Your task to perform on an android device: Do I have any events tomorrow? Image 0: 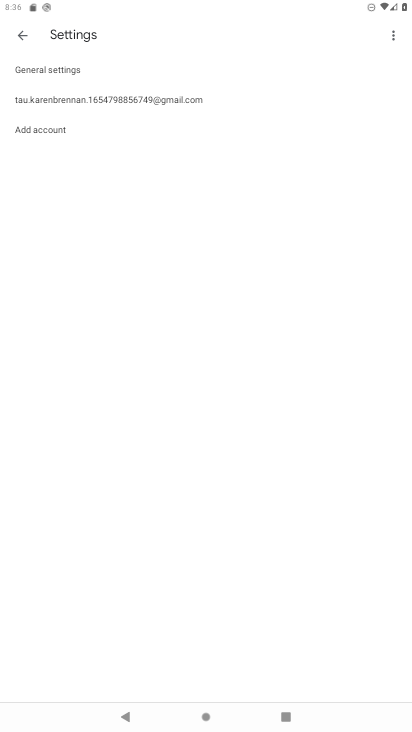
Step 0: press home button
Your task to perform on an android device: Do I have any events tomorrow? Image 1: 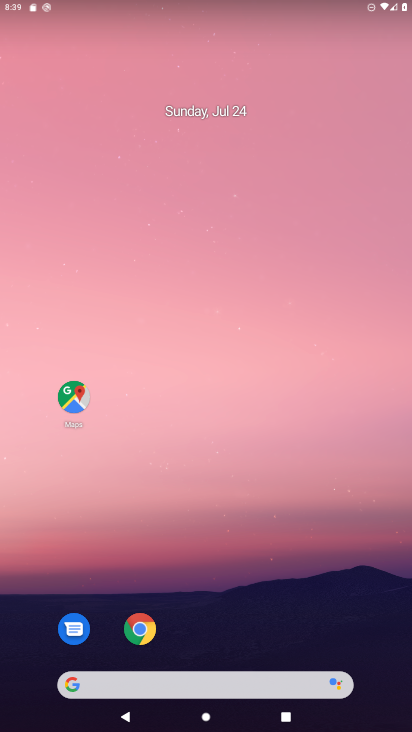
Step 1: drag from (342, 623) to (145, 6)
Your task to perform on an android device: Do I have any events tomorrow? Image 2: 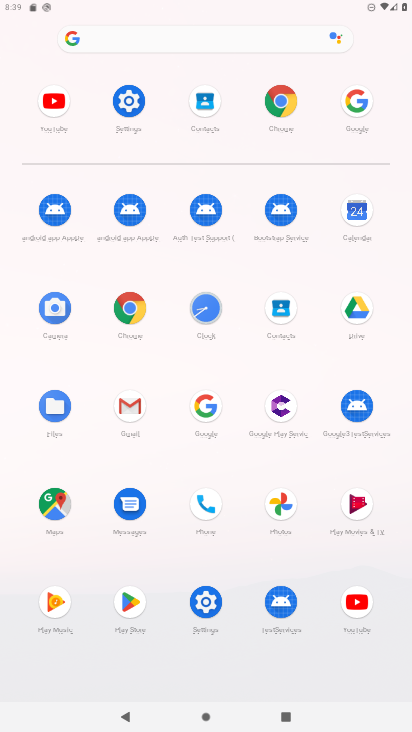
Step 2: click (353, 216)
Your task to perform on an android device: Do I have any events tomorrow? Image 3: 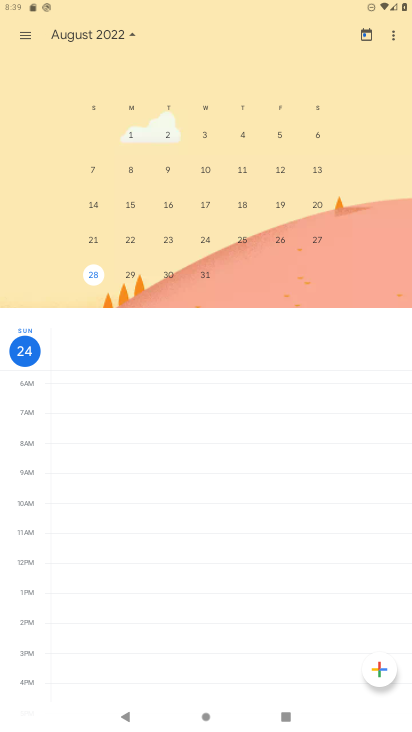
Step 3: task complete